Your task to perform on an android device: uninstall "Truecaller" Image 0: 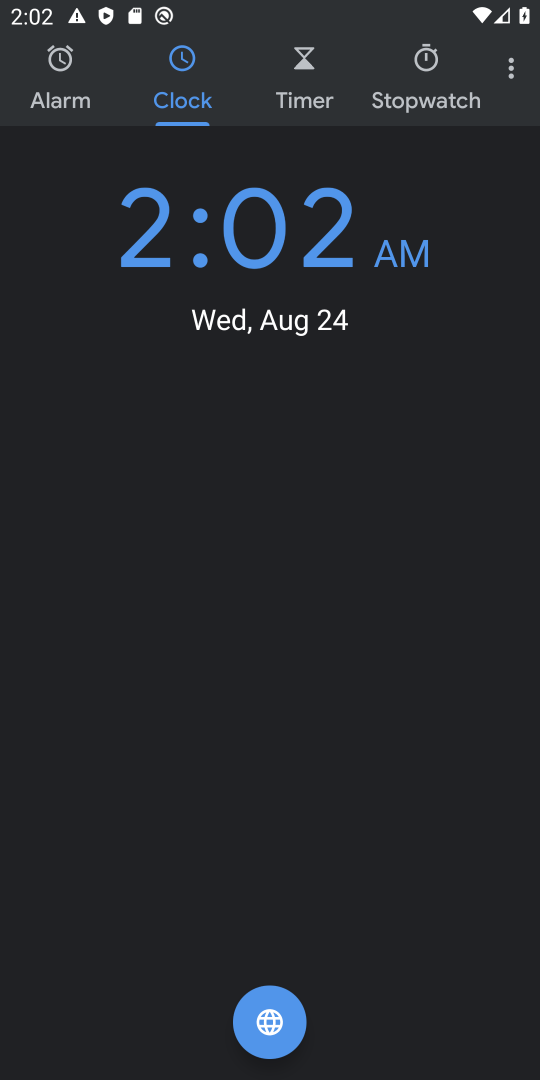
Step 0: press home button
Your task to perform on an android device: uninstall "Truecaller" Image 1: 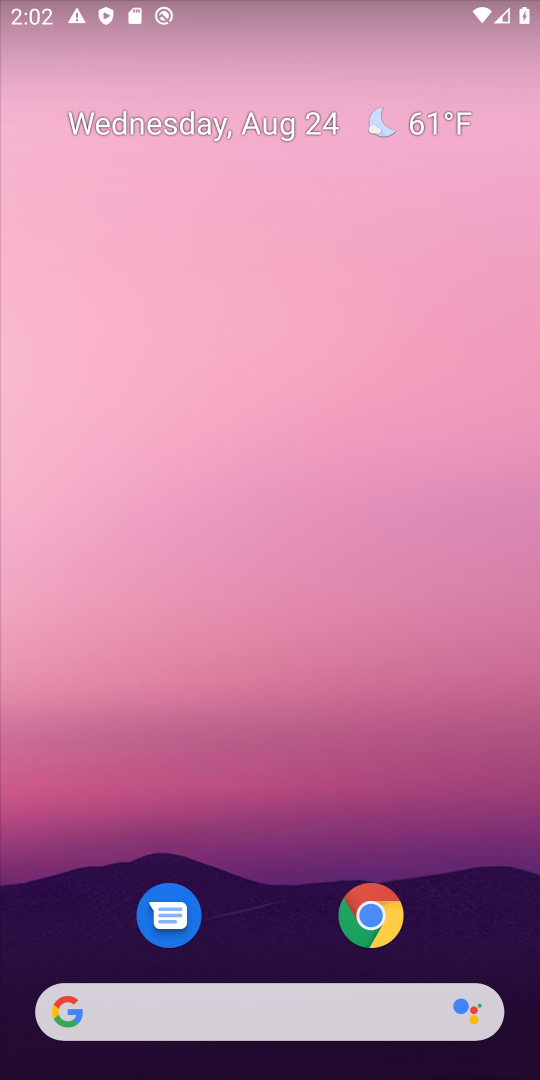
Step 1: drag from (246, 847) to (281, 154)
Your task to perform on an android device: uninstall "Truecaller" Image 2: 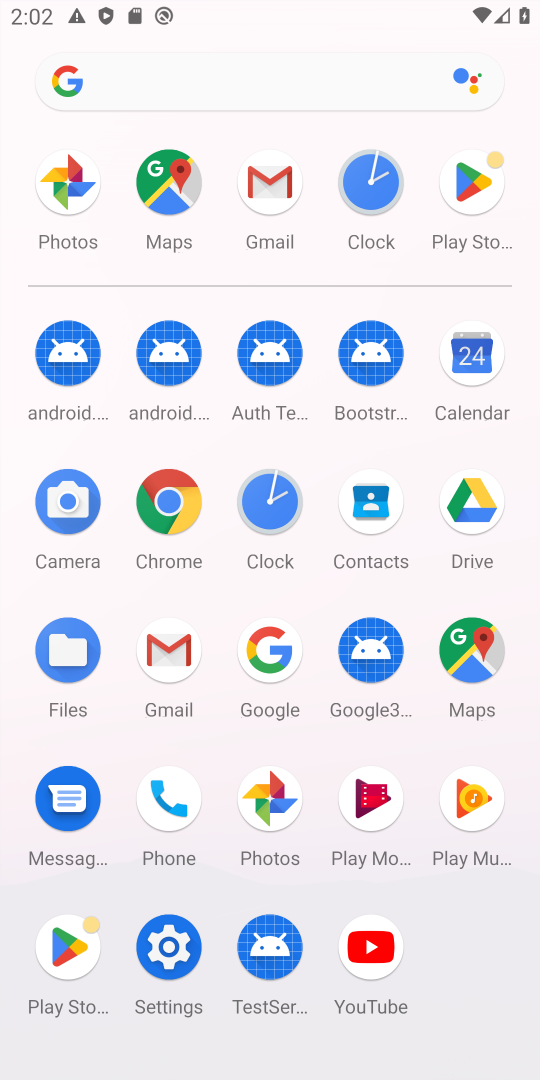
Step 2: click (487, 200)
Your task to perform on an android device: uninstall "Truecaller" Image 3: 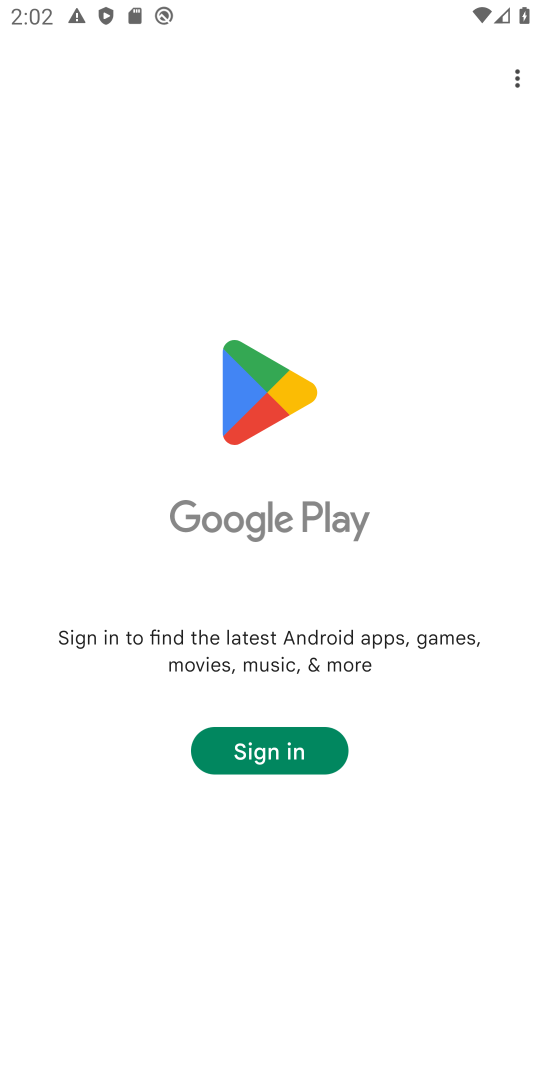
Step 3: task complete